Your task to perform on an android device: Go to calendar. Show me events next week Image 0: 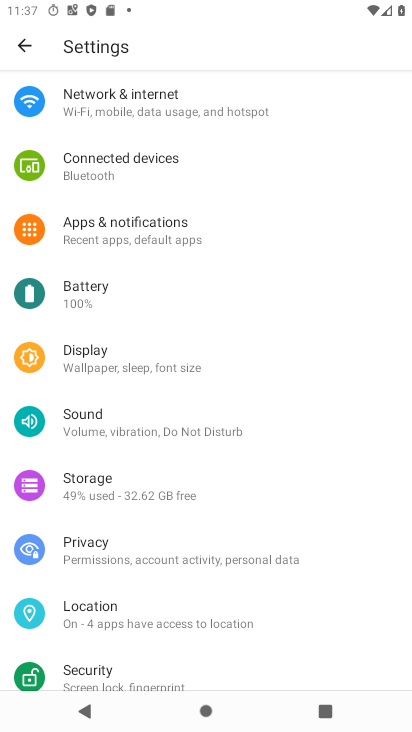
Step 0: press home button
Your task to perform on an android device: Go to calendar. Show me events next week Image 1: 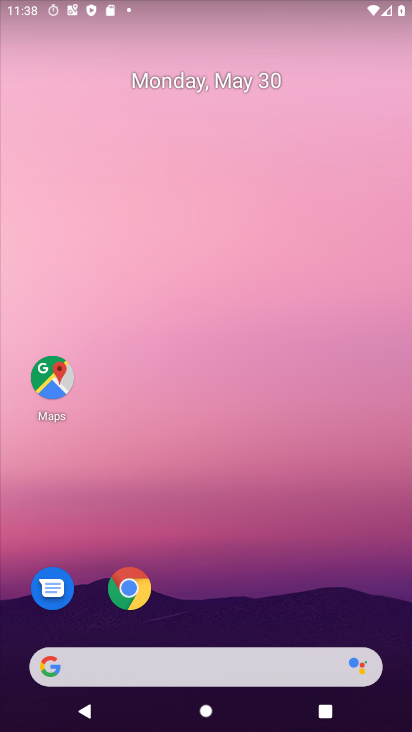
Step 1: drag from (203, 623) to (212, 76)
Your task to perform on an android device: Go to calendar. Show me events next week Image 2: 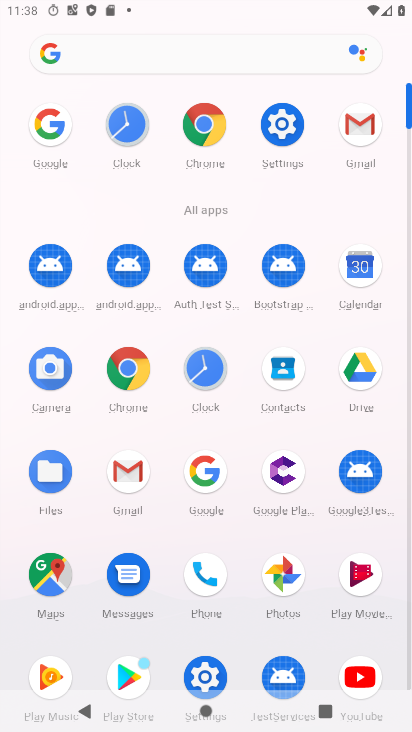
Step 2: click (363, 271)
Your task to perform on an android device: Go to calendar. Show me events next week Image 3: 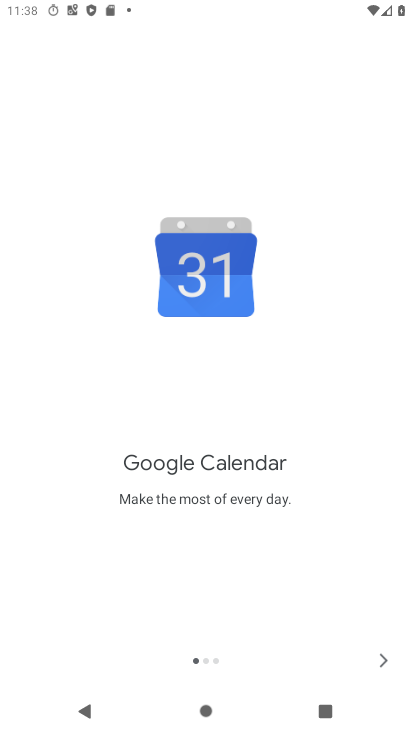
Step 3: click (378, 659)
Your task to perform on an android device: Go to calendar. Show me events next week Image 4: 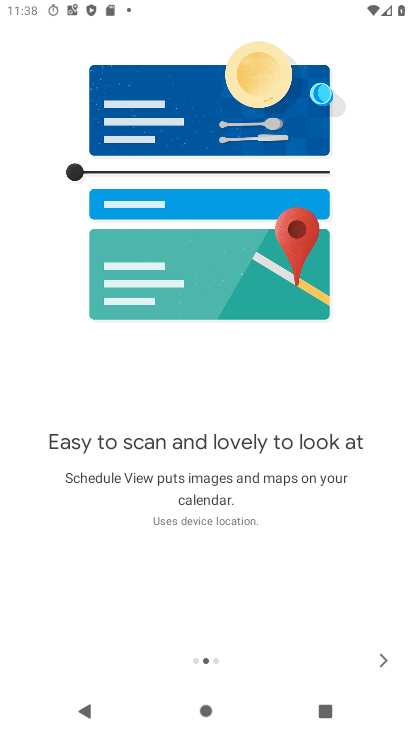
Step 4: click (378, 659)
Your task to perform on an android device: Go to calendar. Show me events next week Image 5: 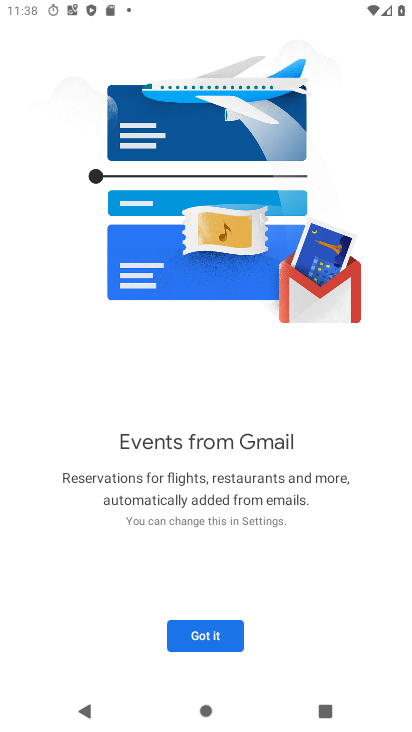
Step 5: click (211, 635)
Your task to perform on an android device: Go to calendar. Show me events next week Image 6: 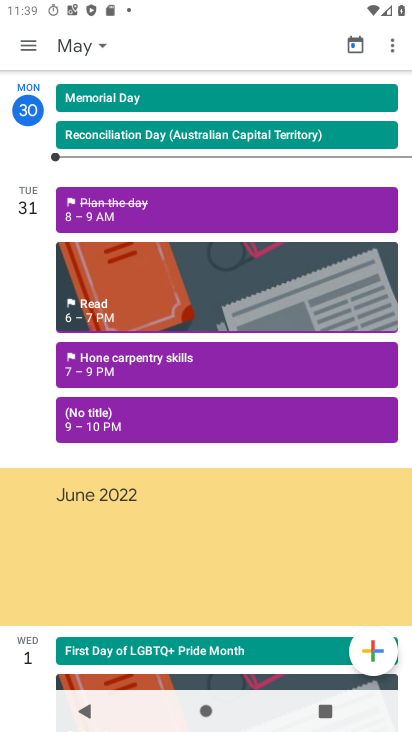
Step 6: drag from (36, 645) to (37, 100)
Your task to perform on an android device: Go to calendar. Show me events next week Image 7: 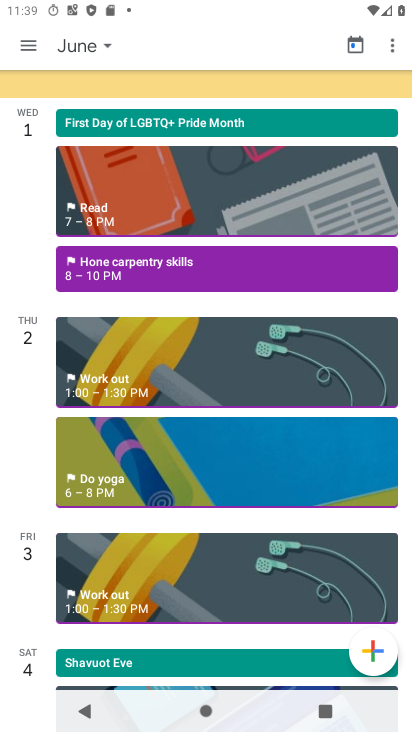
Step 7: drag from (35, 600) to (12, 83)
Your task to perform on an android device: Go to calendar. Show me events next week Image 8: 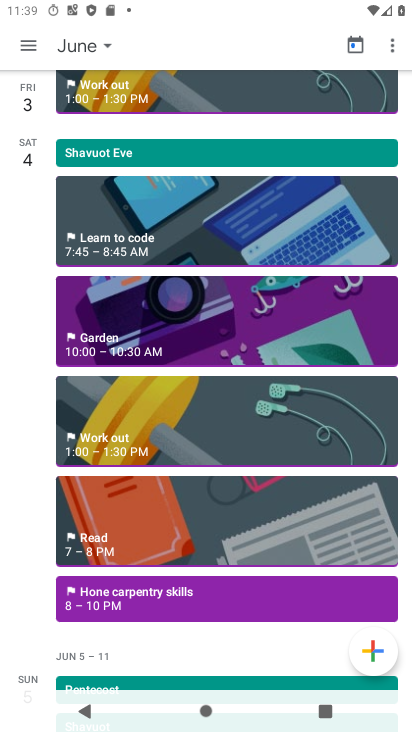
Step 8: click (92, 45)
Your task to perform on an android device: Go to calendar. Show me events next week Image 9: 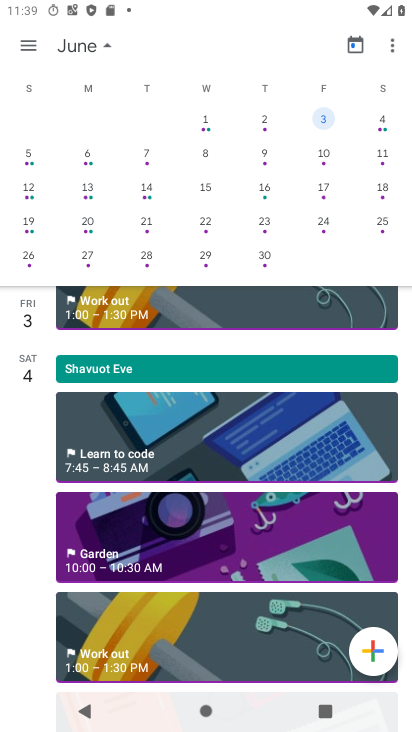
Step 9: click (27, 157)
Your task to perform on an android device: Go to calendar. Show me events next week Image 10: 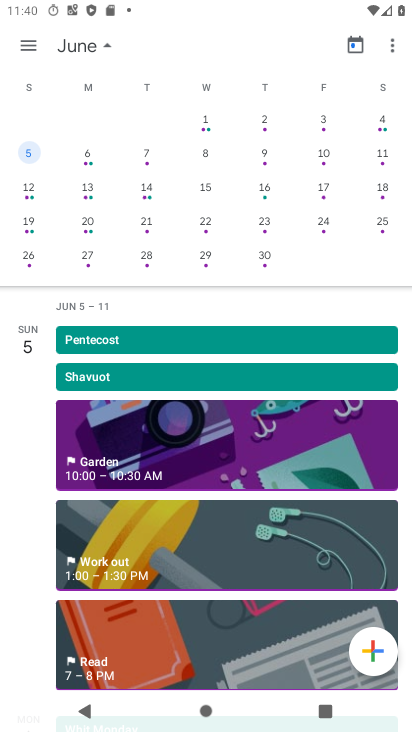
Step 10: click (104, 42)
Your task to perform on an android device: Go to calendar. Show me events next week Image 11: 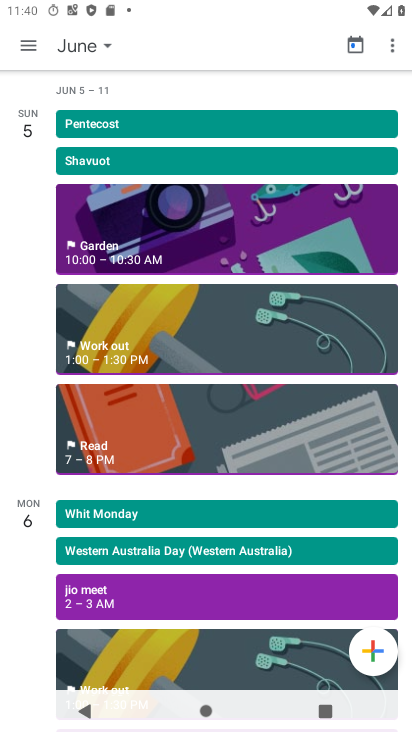
Step 11: task complete